Your task to perform on an android device: Show me productivity apps on the Play Store Image 0: 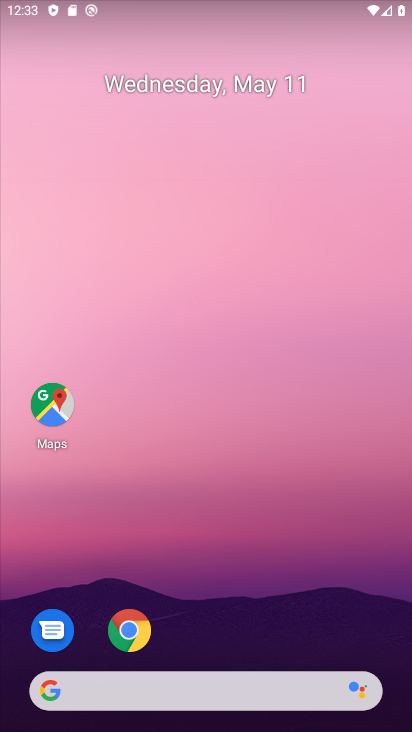
Step 0: drag from (225, 644) to (329, 229)
Your task to perform on an android device: Show me productivity apps on the Play Store Image 1: 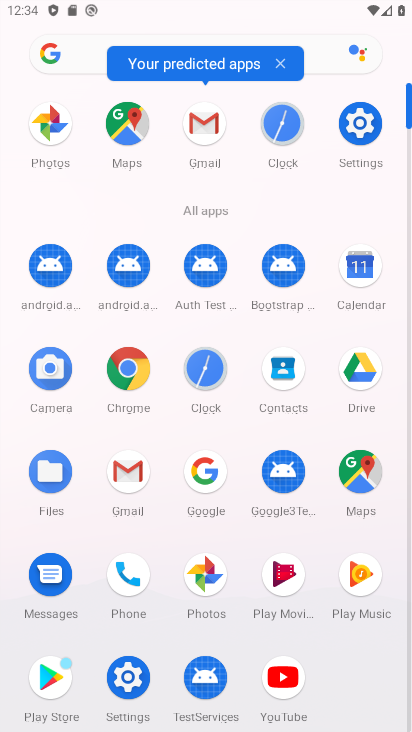
Step 1: click (39, 678)
Your task to perform on an android device: Show me productivity apps on the Play Store Image 2: 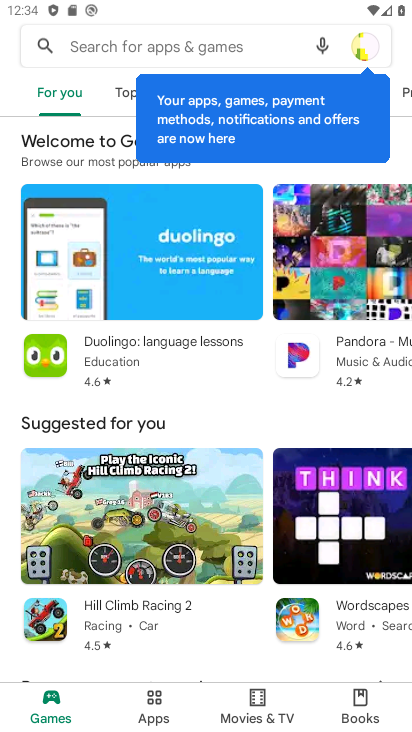
Step 2: click (139, 705)
Your task to perform on an android device: Show me productivity apps on the Play Store Image 3: 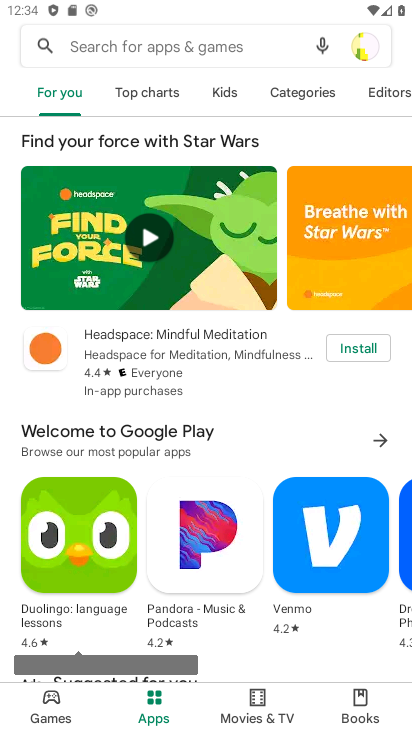
Step 3: click (306, 90)
Your task to perform on an android device: Show me productivity apps on the Play Store Image 4: 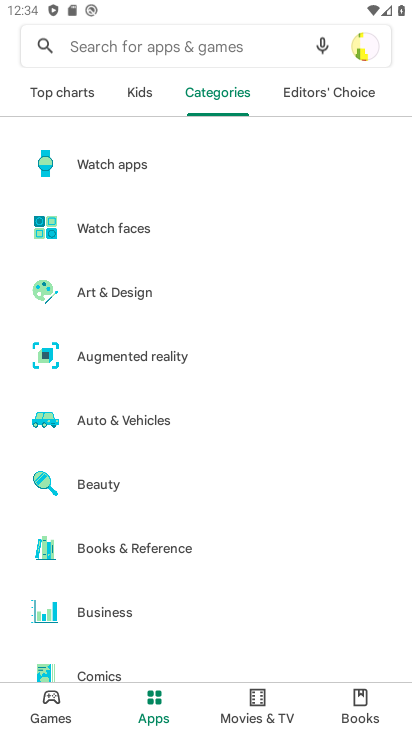
Step 4: drag from (195, 603) to (195, 108)
Your task to perform on an android device: Show me productivity apps on the Play Store Image 5: 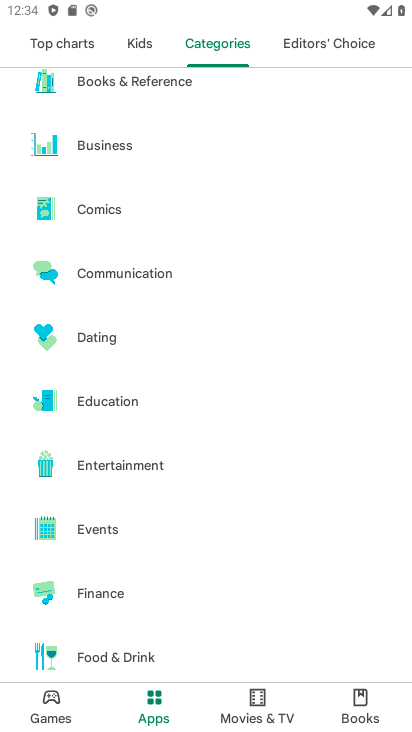
Step 5: drag from (180, 615) to (227, 48)
Your task to perform on an android device: Show me productivity apps on the Play Store Image 6: 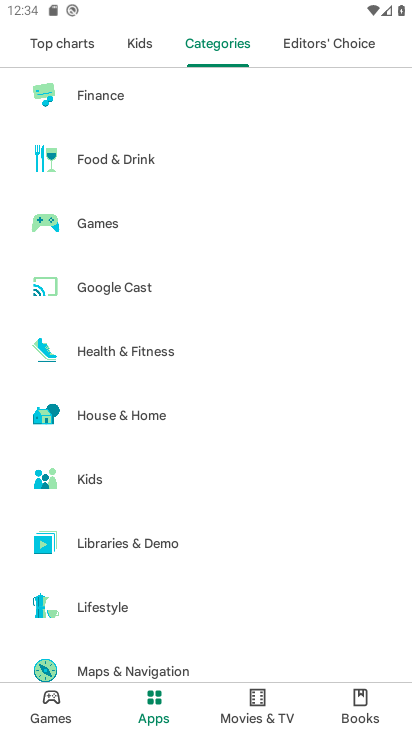
Step 6: drag from (202, 612) to (240, 64)
Your task to perform on an android device: Show me productivity apps on the Play Store Image 7: 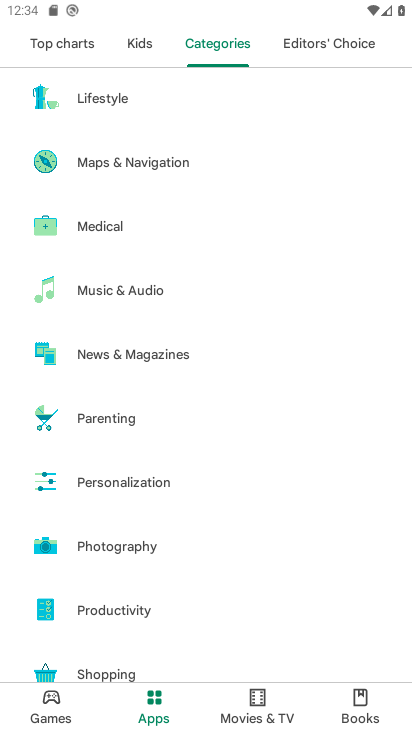
Step 7: click (137, 585)
Your task to perform on an android device: Show me productivity apps on the Play Store Image 8: 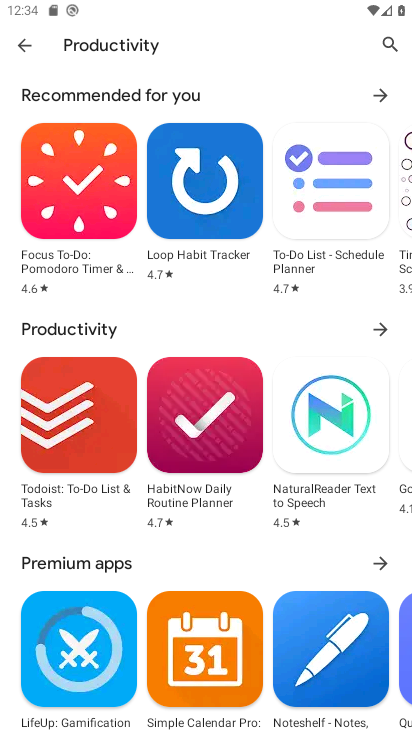
Step 8: task complete